Your task to perform on an android device: Open location settings Image 0: 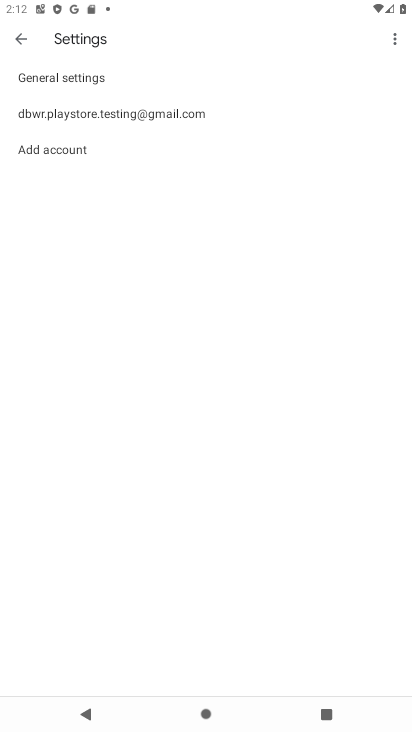
Step 0: press home button
Your task to perform on an android device: Open location settings Image 1: 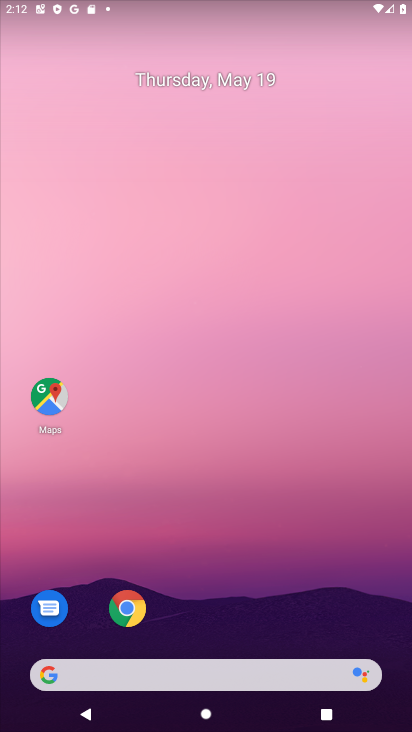
Step 1: drag from (261, 638) to (212, 105)
Your task to perform on an android device: Open location settings Image 2: 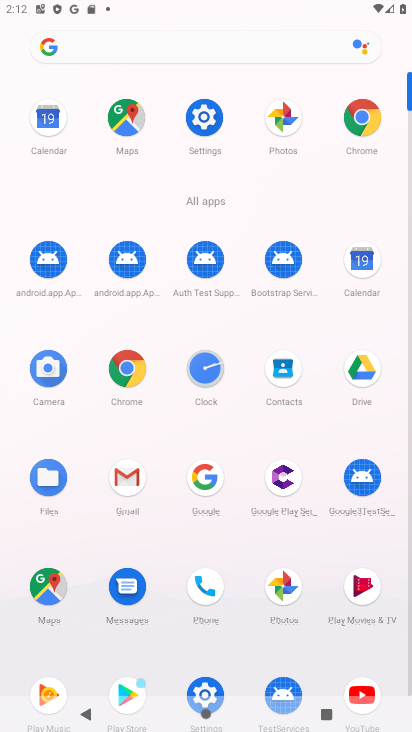
Step 2: click (215, 126)
Your task to perform on an android device: Open location settings Image 3: 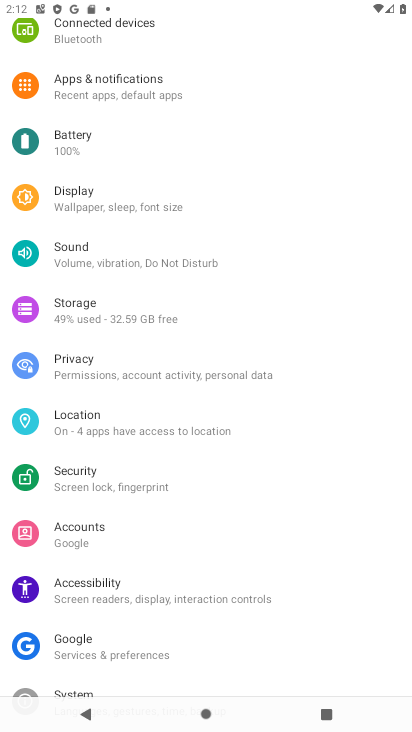
Step 3: click (137, 417)
Your task to perform on an android device: Open location settings Image 4: 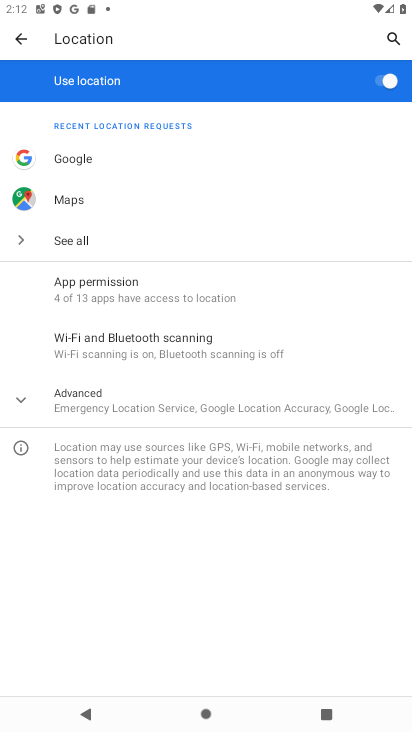
Step 4: task complete